Your task to perform on an android device: turn on the 24-hour format for clock Image 0: 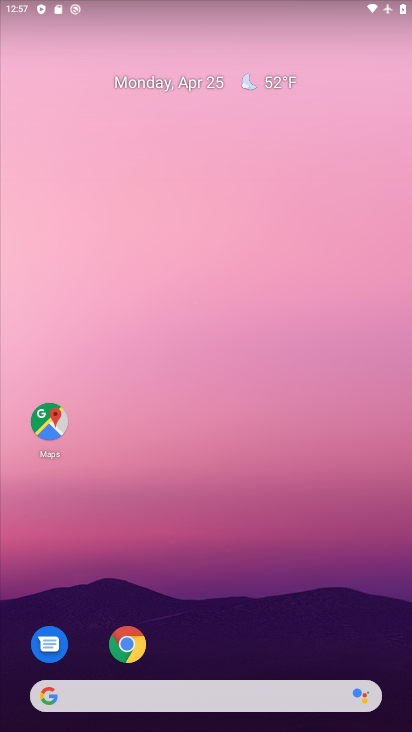
Step 0: drag from (265, 633) to (269, 96)
Your task to perform on an android device: turn on the 24-hour format for clock Image 1: 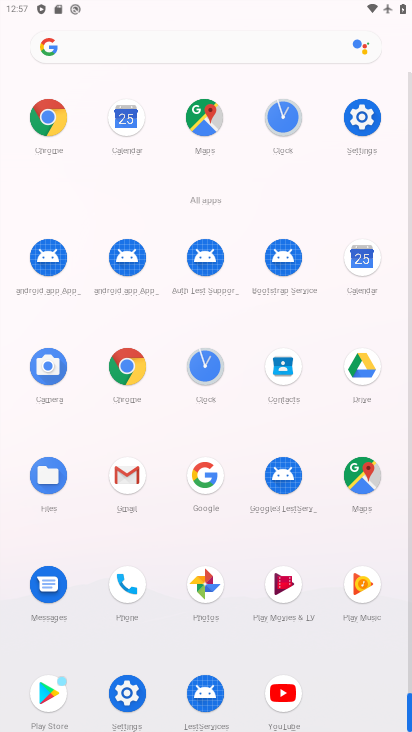
Step 1: click (274, 115)
Your task to perform on an android device: turn on the 24-hour format for clock Image 2: 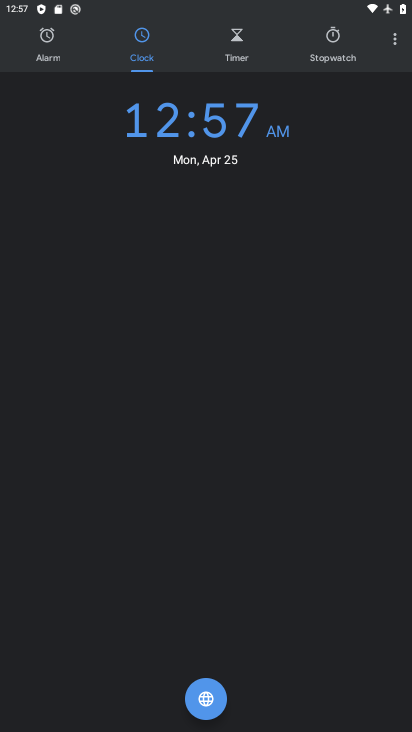
Step 2: click (395, 48)
Your task to perform on an android device: turn on the 24-hour format for clock Image 3: 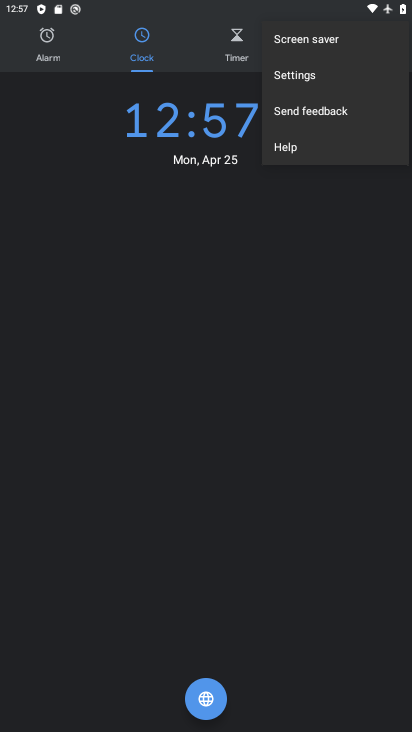
Step 3: click (309, 81)
Your task to perform on an android device: turn on the 24-hour format for clock Image 4: 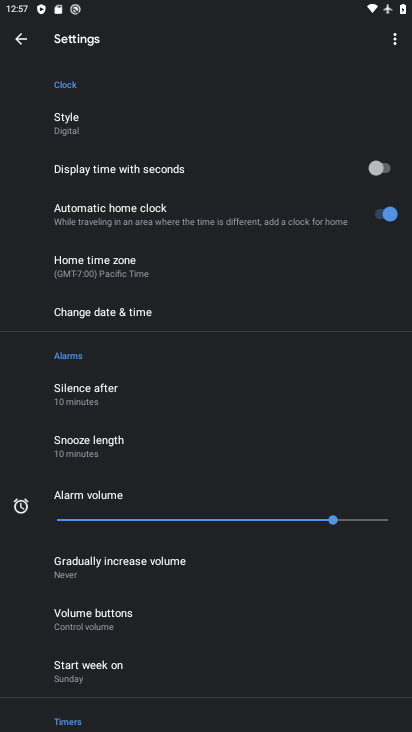
Step 4: click (136, 326)
Your task to perform on an android device: turn on the 24-hour format for clock Image 5: 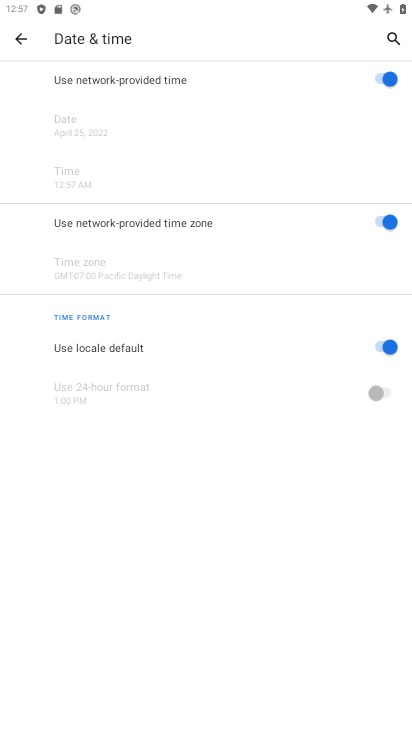
Step 5: click (348, 348)
Your task to perform on an android device: turn on the 24-hour format for clock Image 6: 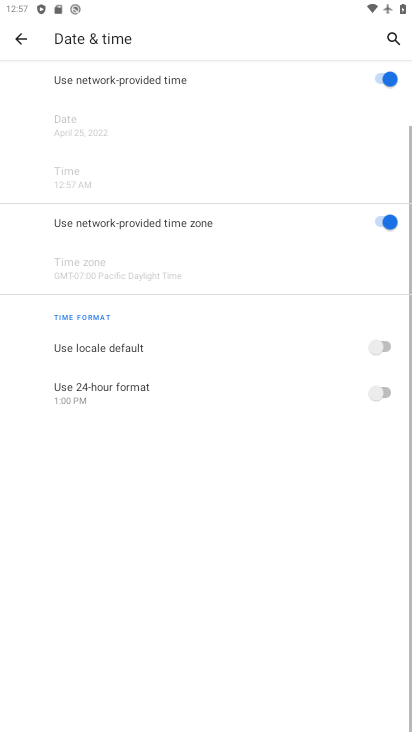
Step 6: click (366, 385)
Your task to perform on an android device: turn on the 24-hour format for clock Image 7: 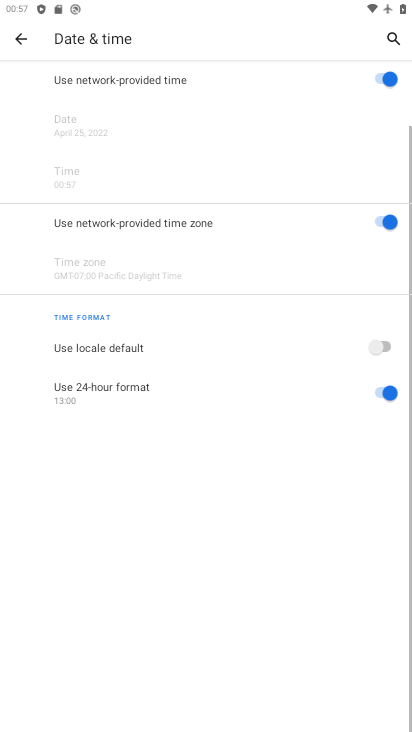
Step 7: task complete